Your task to perform on an android device: Open Google Chrome and open the bookmarks view Image 0: 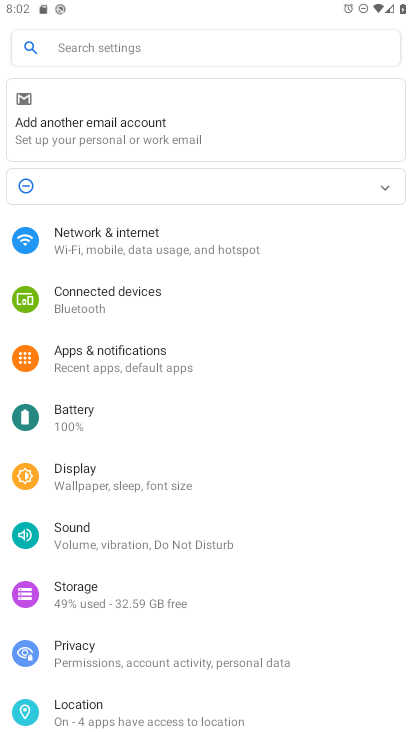
Step 0: press home button
Your task to perform on an android device: Open Google Chrome and open the bookmarks view Image 1: 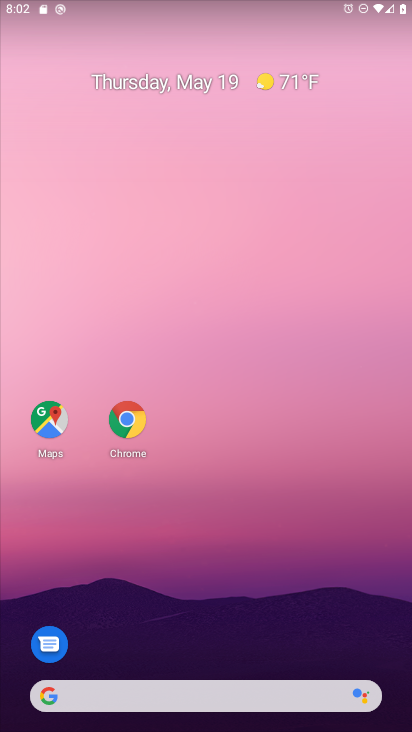
Step 1: click (128, 407)
Your task to perform on an android device: Open Google Chrome and open the bookmarks view Image 2: 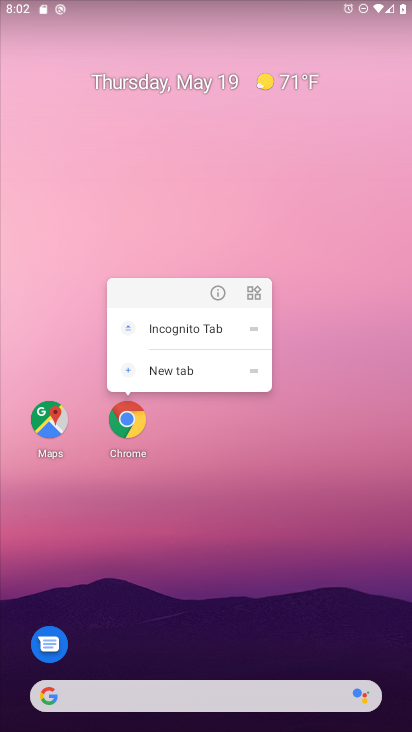
Step 2: click (128, 421)
Your task to perform on an android device: Open Google Chrome and open the bookmarks view Image 3: 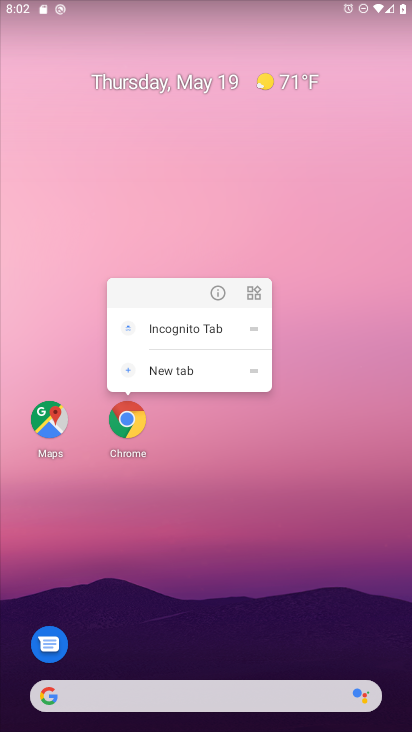
Step 3: click (127, 431)
Your task to perform on an android device: Open Google Chrome and open the bookmarks view Image 4: 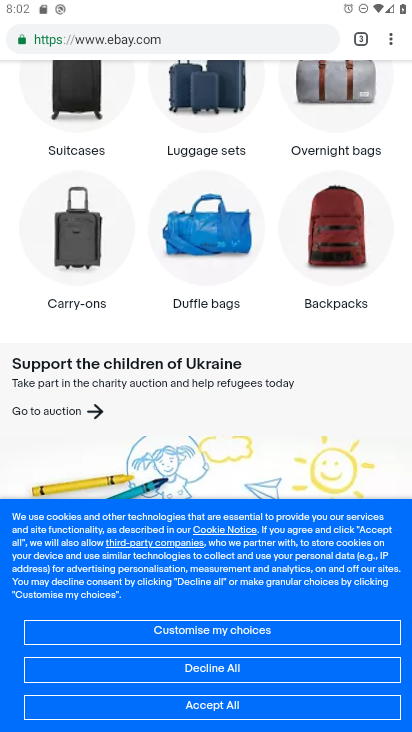
Step 4: click (362, 41)
Your task to perform on an android device: Open Google Chrome and open the bookmarks view Image 5: 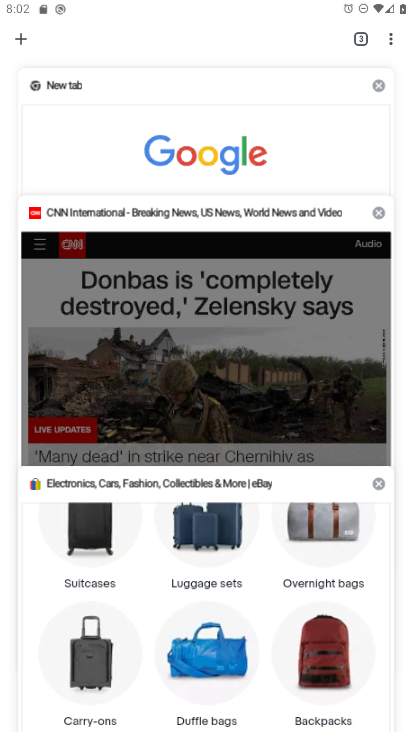
Step 5: click (18, 38)
Your task to perform on an android device: Open Google Chrome and open the bookmarks view Image 6: 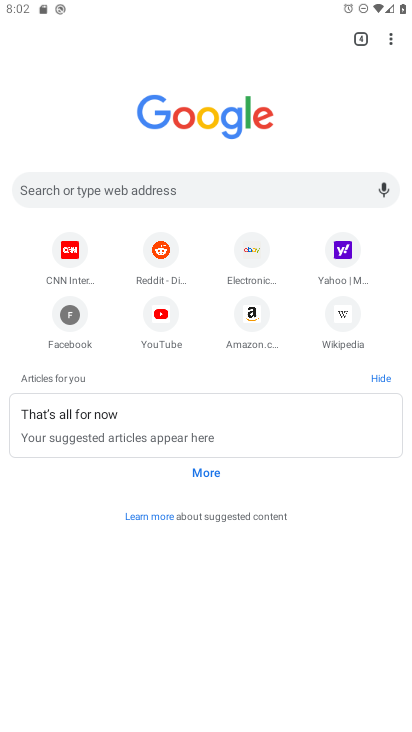
Step 6: click (389, 38)
Your task to perform on an android device: Open Google Chrome and open the bookmarks view Image 7: 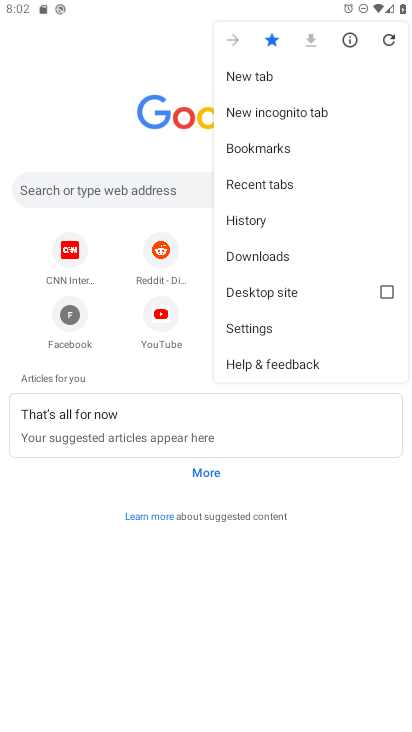
Step 7: click (264, 148)
Your task to perform on an android device: Open Google Chrome and open the bookmarks view Image 8: 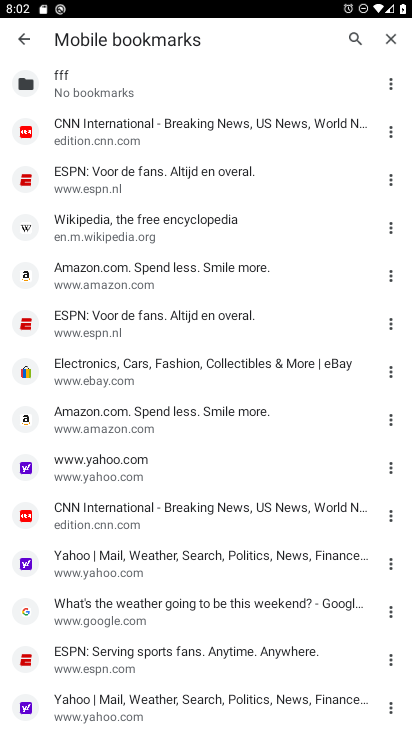
Step 8: task complete